Your task to perform on an android device: Open Wikipedia Image 0: 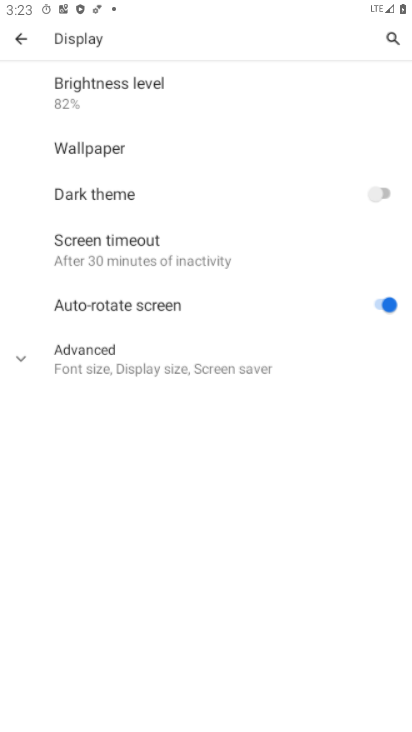
Step 0: press home button
Your task to perform on an android device: Open Wikipedia Image 1: 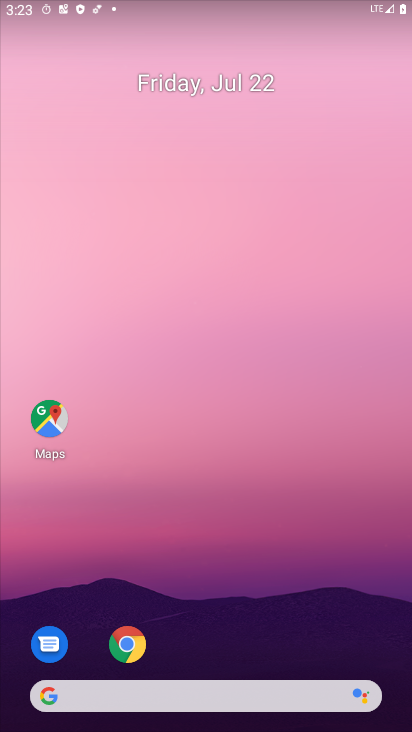
Step 1: click (40, 701)
Your task to perform on an android device: Open Wikipedia Image 2: 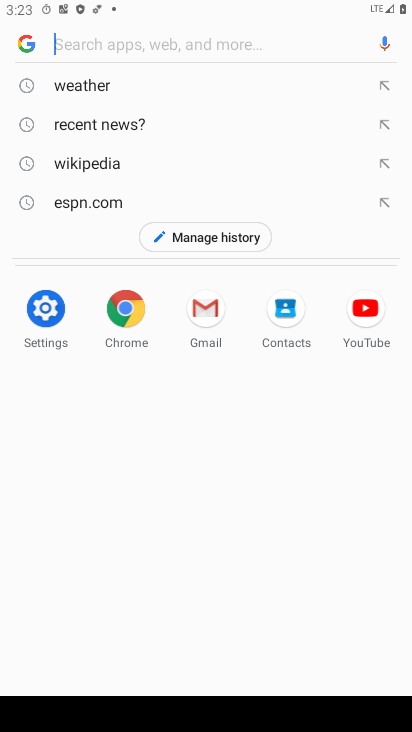
Step 2: click (77, 165)
Your task to perform on an android device: Open Wikipedia Image 3: 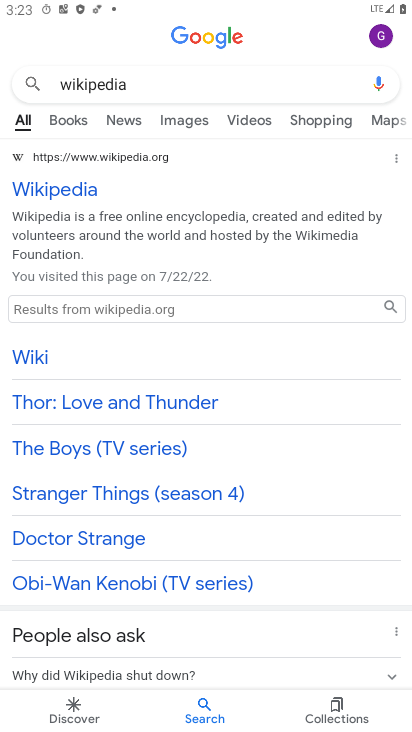
Step 3: click (37, 191)
Your task to perform on an android device: Open Wikipedia Image 4: 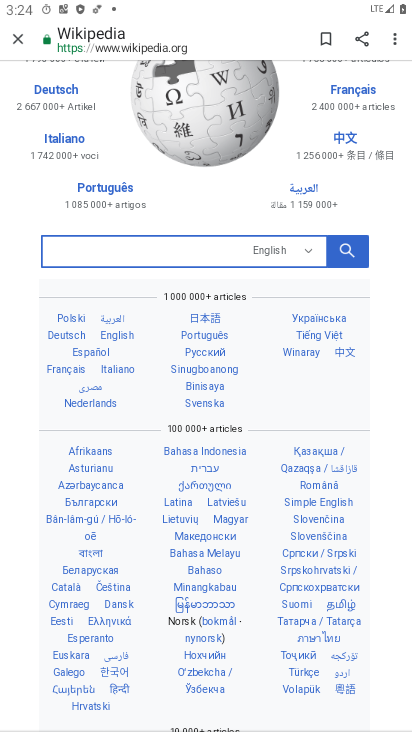
Step 4: task complete